Your task to perform on an android device: create a new album in the google photos Image 0: 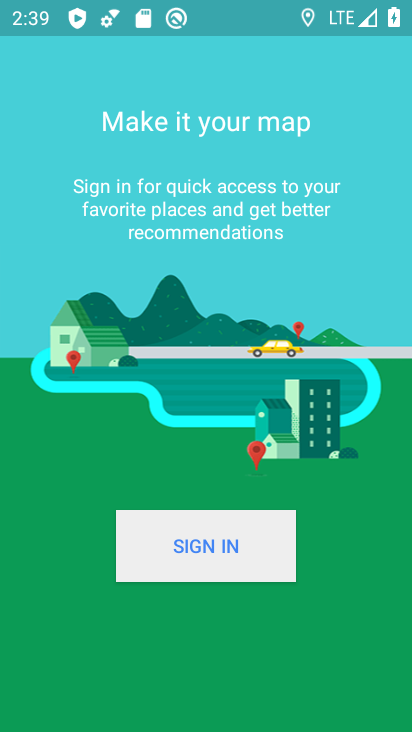
Step 0: press home button
Your task to perform on an android device: create a new album in the google photos Image 1: 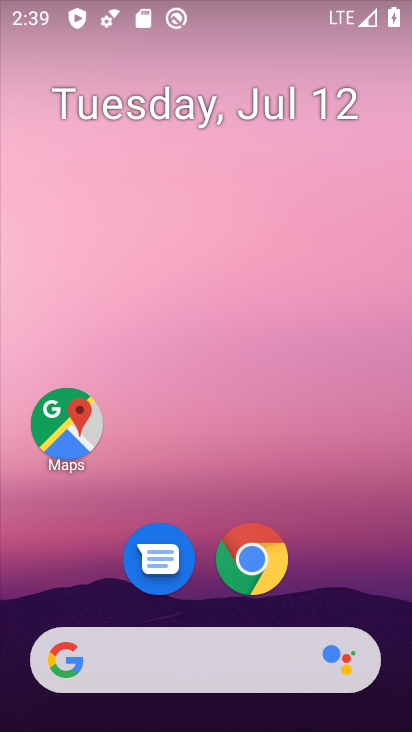
Step 1: drag from (379, 603) to (387, 52)
Your task to perform on an android device: create a new album in the google photos Image 2: 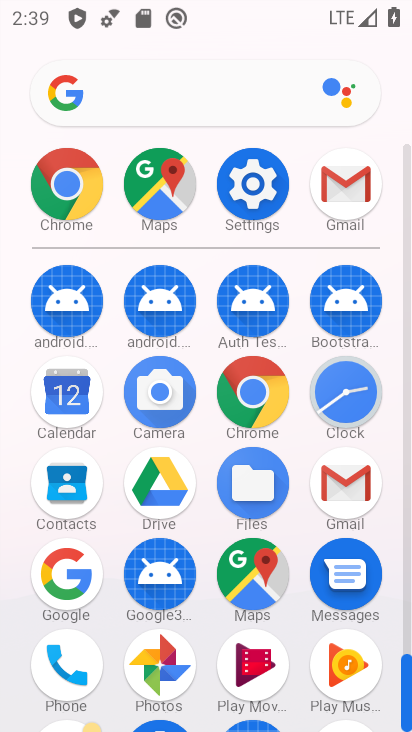
Step 2: click (163, 660)
Your task to perform on an android device: create a new album in the google photos Image 3: 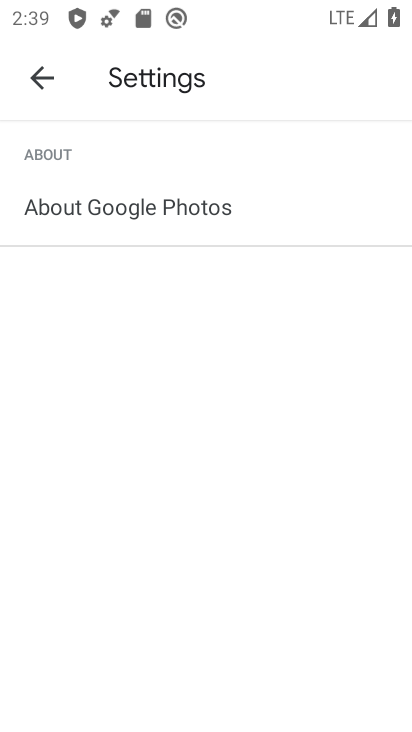
Step 3: task complete